Your task to perform on an android device: Do I have any events tomorrow? Image 0: 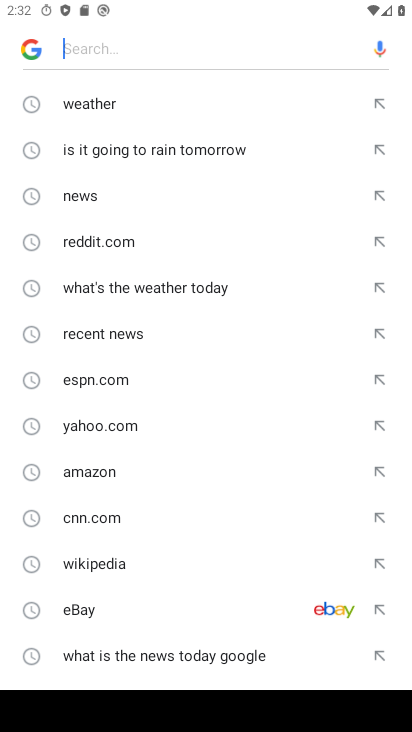
Step 0: press home button
Your task to perform on an android device: Do I have any events tomorrow? Image 1: 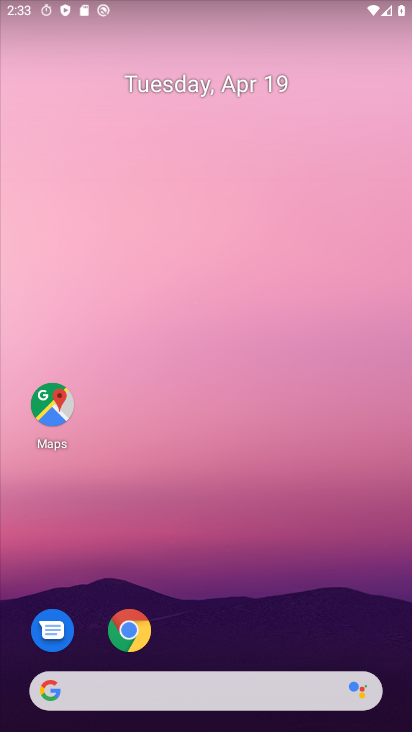
Step 1: drag from (262, 500) to (279, 59)
Your task to perform on an android device: Do I have any events tomorrow? Image 2: 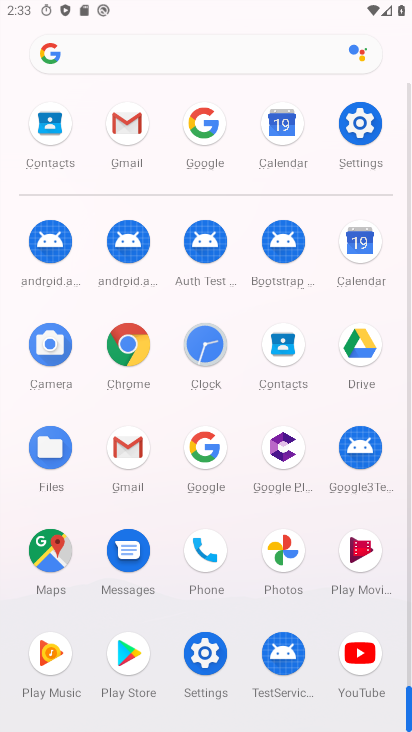
Step 2: click (359, 245)
Your task to perform on an android device: Do I have any events tomorrow? Image 3: 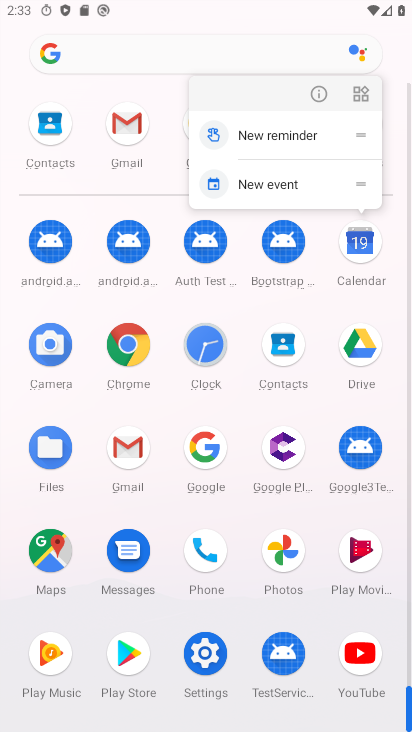
Step 3: click (357, 246)
Your task to perform on an android device: Do I have any events tomorrow? Image 4: 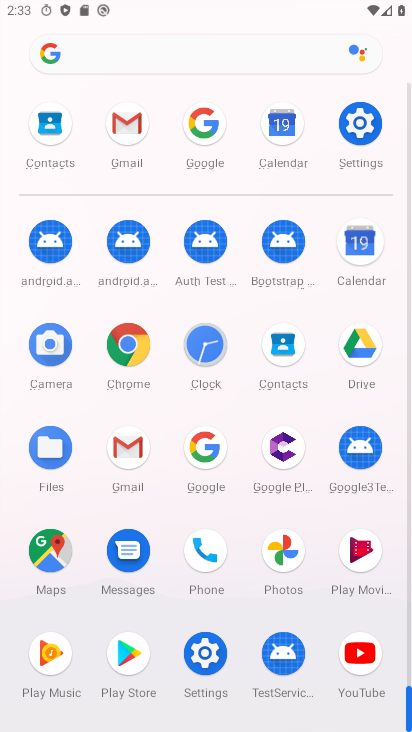
Step 4: click (357, 246)
Your task to perform on an android device: Do I have any events tomorrow? Image 5: 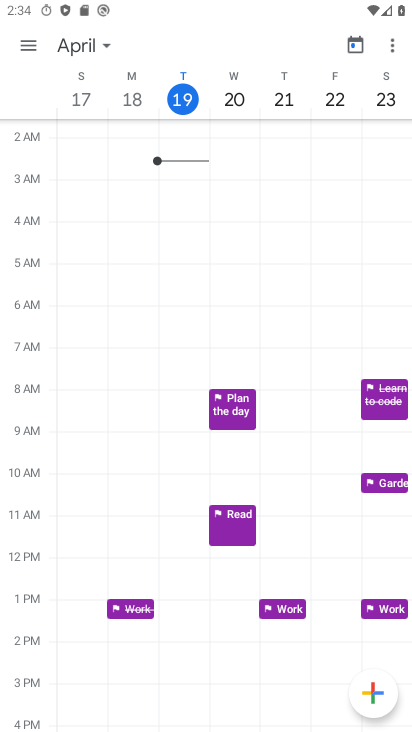
Step 5: click (21, 44)
Your task to perform on an android device: Do I have any events tomorrow? Image 6: 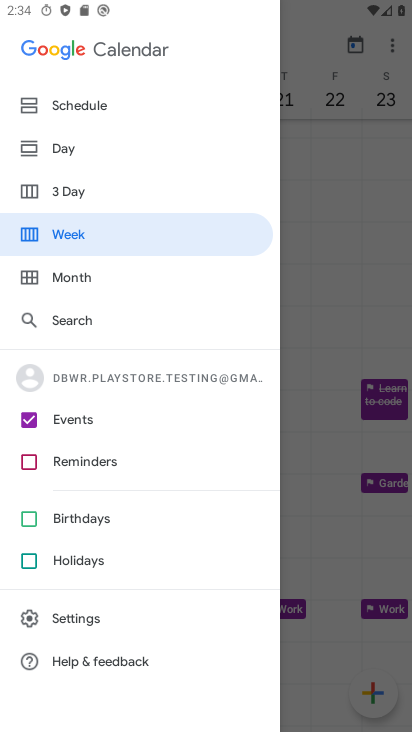
Step 6: click (82, 107)
Your task to perform on an android device: Do I have any events tomorrow? Image 7: 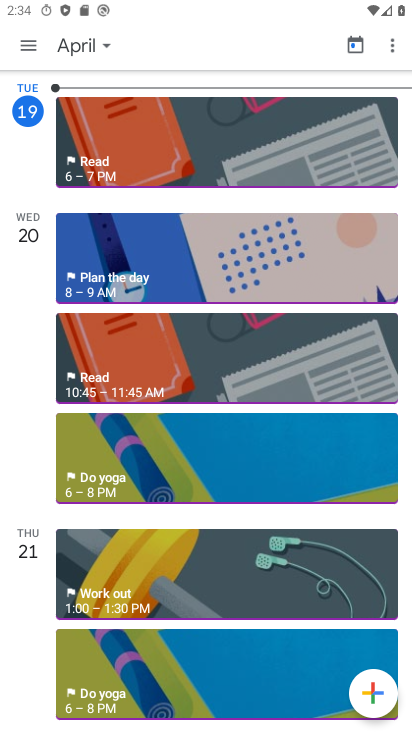
Step 7: task complete